Your task to perform on an android device: turn on the 12-hour format for clock Image 0: 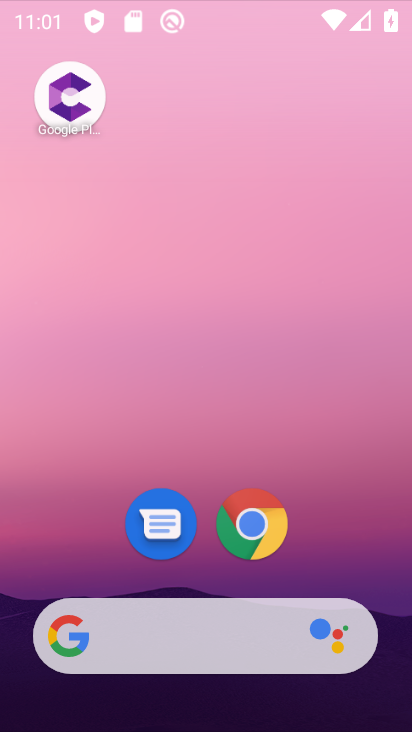
Step 0: click (54, 83)
Your task to perform on an android device: turn on the 12-hour format for clock Image 1: 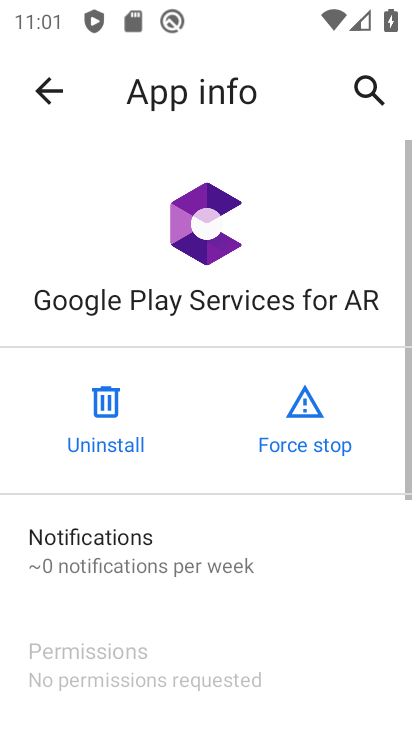
Step 1: drag from (293, 713) to (184, 159)
Your task to perform on an android device: turn on the 12-hour format for clock Image 2: 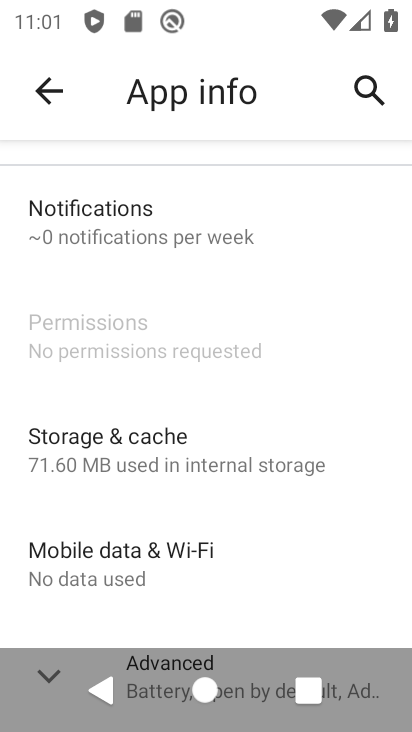
Step 2: click (43, 80)
Your task to perform on an android device: turn on the 12-hour format for clock Image 3: 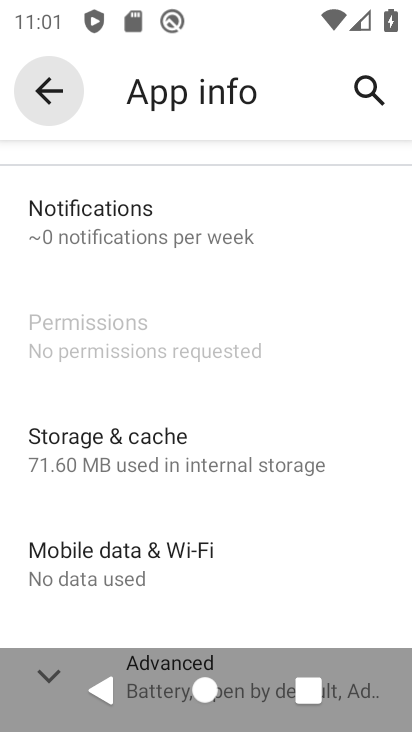
Step 3: click (43, 80)
Your task to perform on an android device: turn on the 12-hour format for clock Image 4: 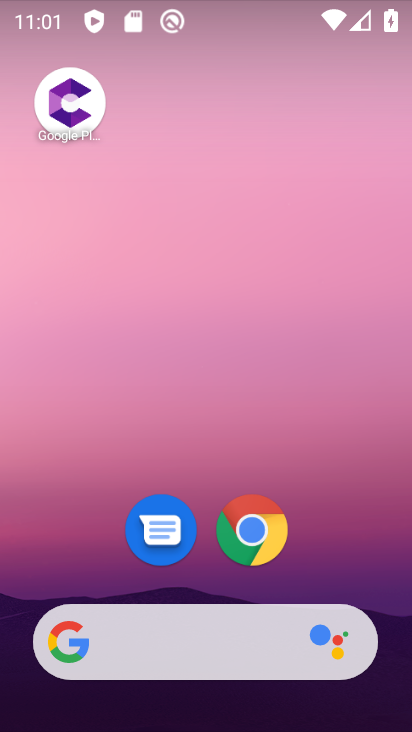
Step 4: drag from (233, 692) to (159, 100)
Your task to perform on an android device: turn on the 12-hour format for clock Image 5: 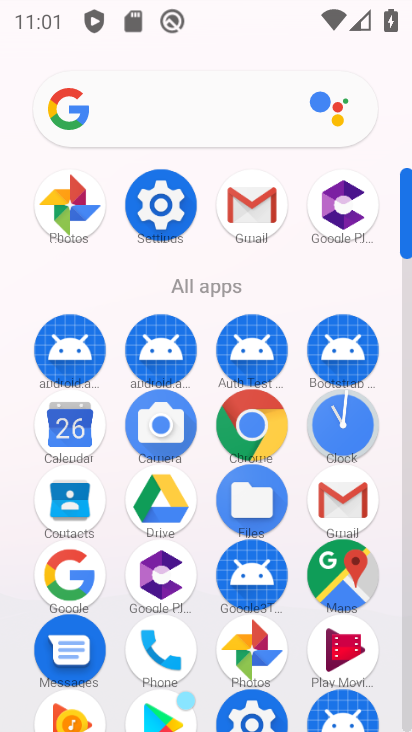
Step 5: click (347, 453)
Your task to perform on an android device: turn on the 12-hour format for clock Image 6: 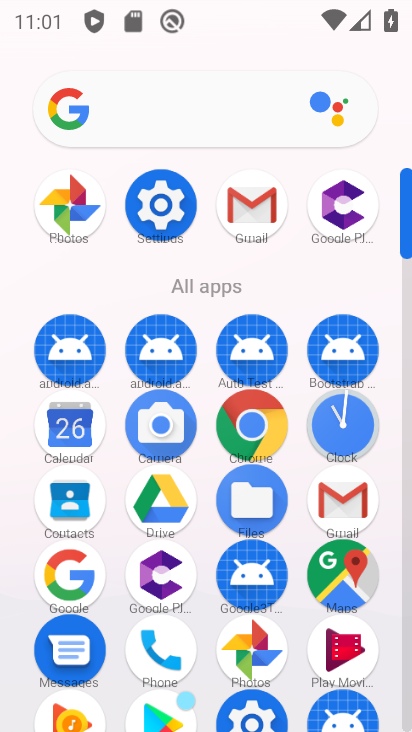
Step 6: click (345, 443)
Your task to perform on an android device: turn on the 12-hour format for clock Image 7: 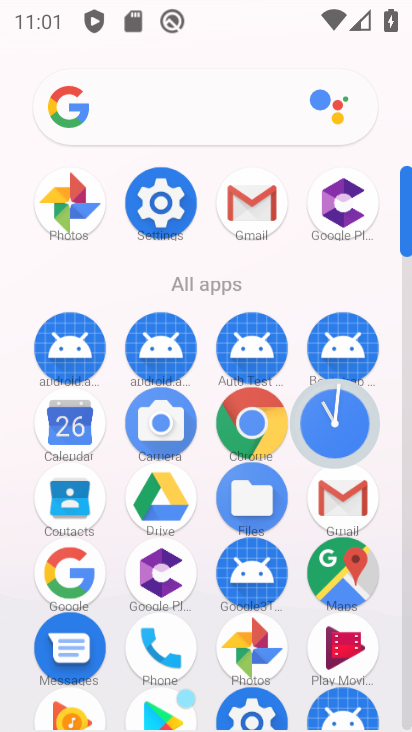
Step 7: click (345, 443)
Your task to perform on an android device: turn on the 12-hour format for clock Image 8: 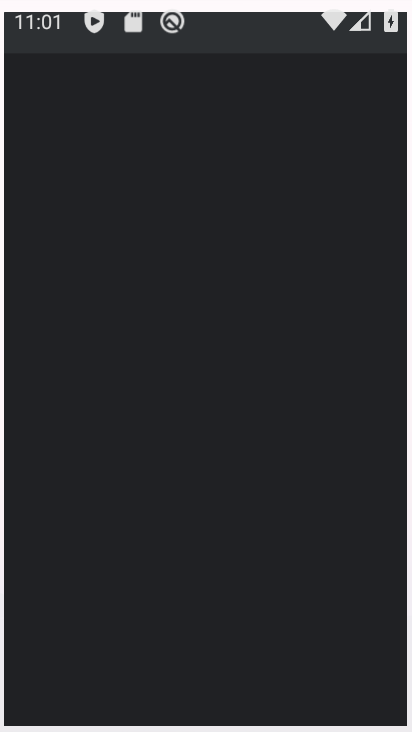
Step 8: click (345, 443)
Your task to perform on an android device: turn on the 12-hour format for clock Image 9: 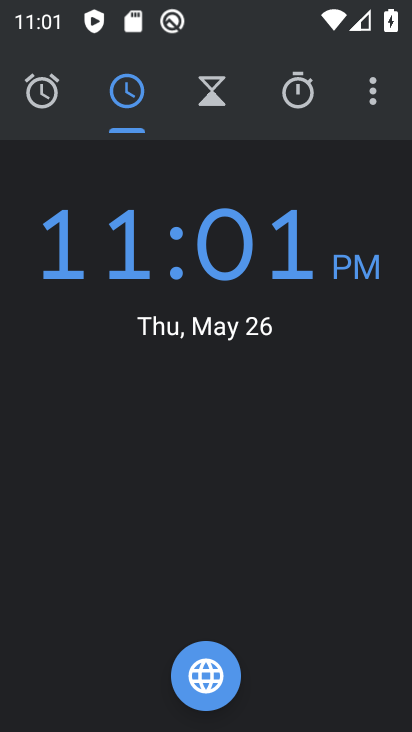
Step 9: click (370, 91)
Your task to perform on an android device: turn on the 12-hour format for clock Image 10: 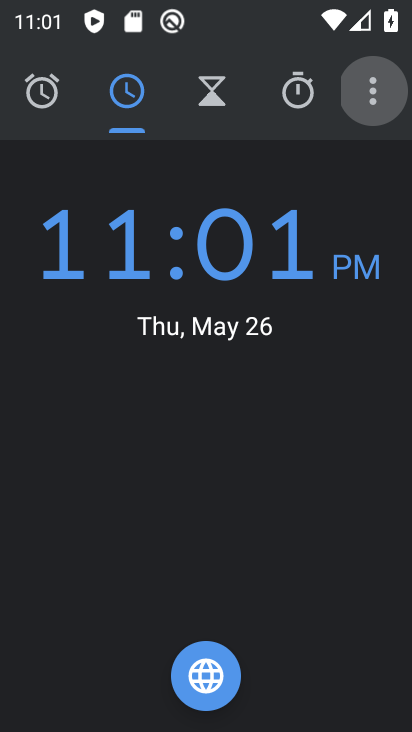
Step 10: click (371, 91)
Your task to perform on an android device: turn on the 12-hour format for clock Image 11: 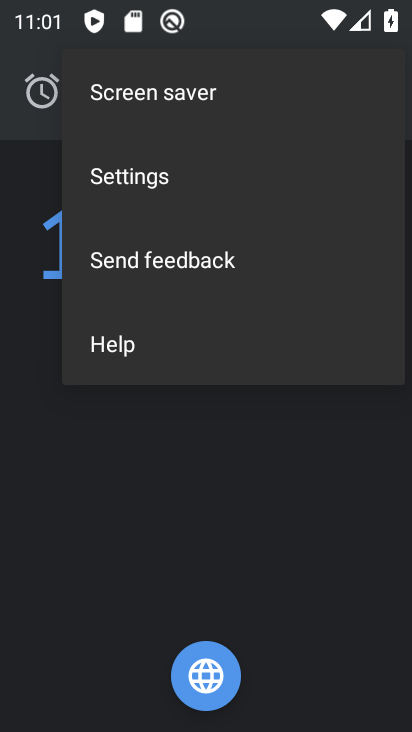
Step 11: click (372, 95)
Your task to perform on an android device: turn on the 12-hour format for clock Image 12: 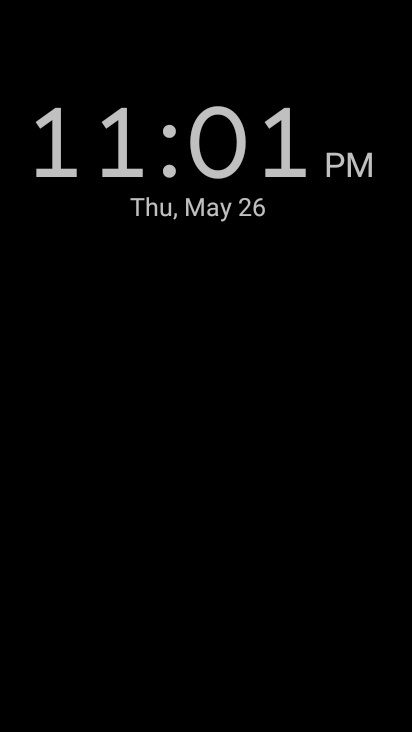
Step 12: press back button
Your task to perform on an android device: turn on the 12-hour format for clock Image 13: 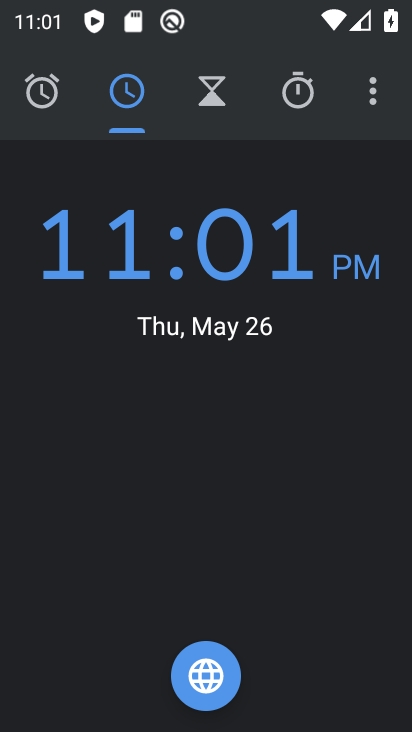
Step 13: click (377, 95)
Your task to perform on an android device: turn on the 12-hour format for clock Image 14: 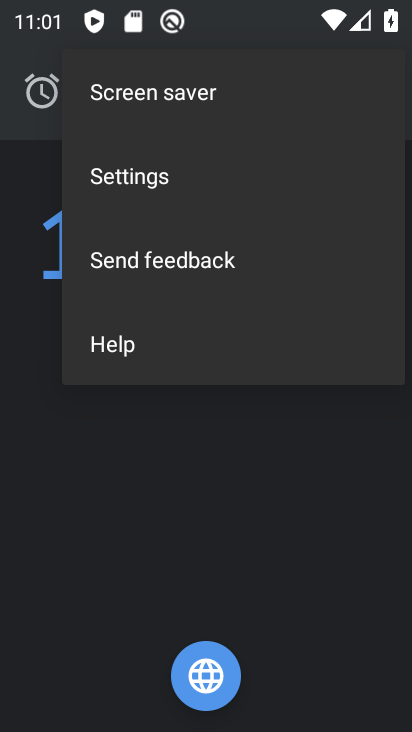
Step 14: click (136, 173)
Your task to perform on an android device: turn on the 12-hour format for clock Image 15: 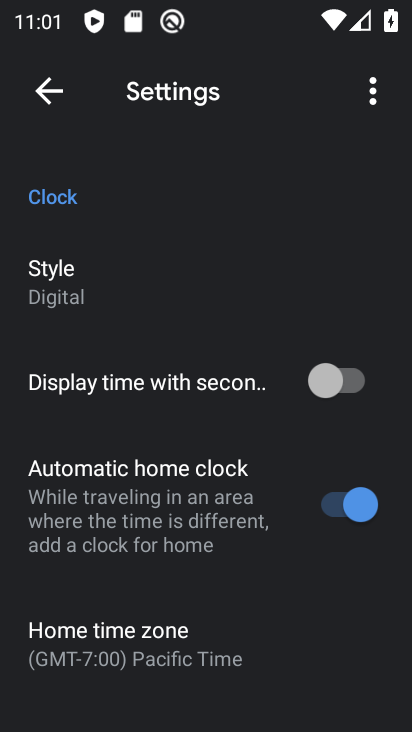
Step 15: drag from (194, 617) to (136, 240)
Your task to perform on an android device: turn on the 12-hour format for clock Image 16: 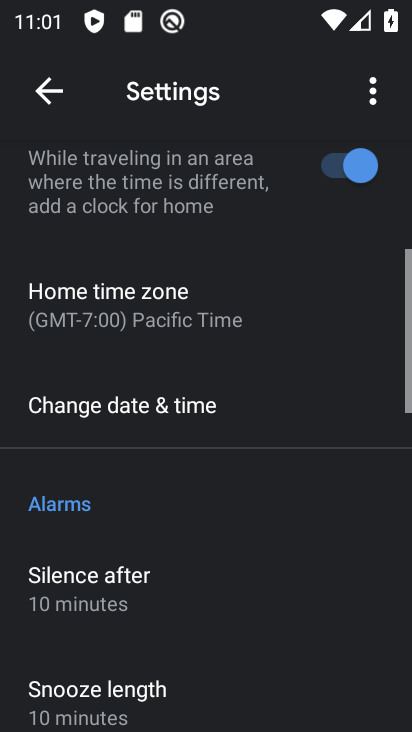
Step 16: drag from (167, 469) to (167, 247)
Your task to perform on an android device: turn on the 12-hour format for clock Image 17: 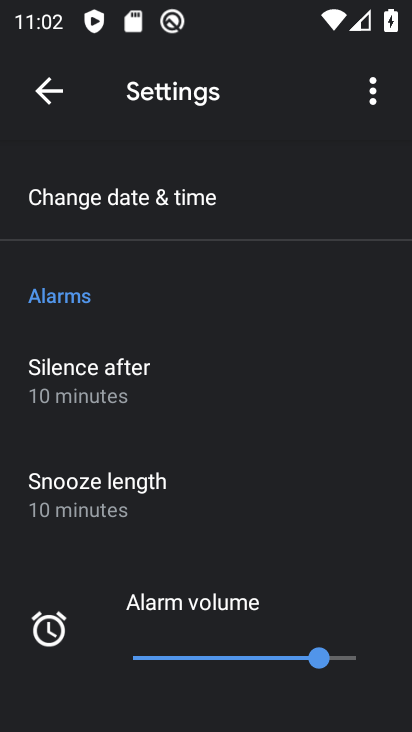
Step 17: drag from (139, 482) to (137, 57)
Your task to perform on an android device: turn on the 12-hour format for clock Image 18: 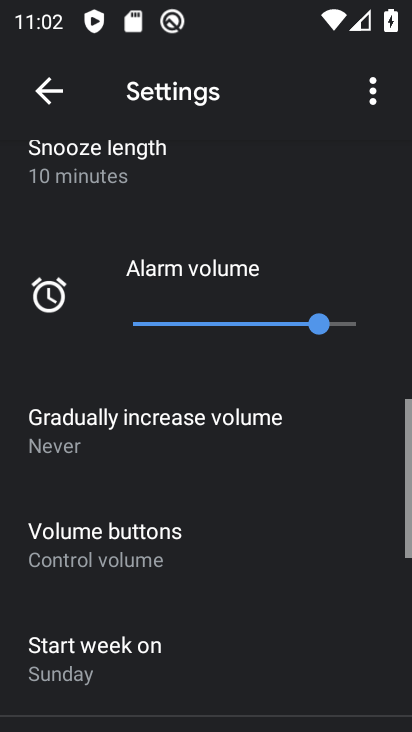
Step 18: drag from (187, 384) to (220, 158)
Your task to perform on an android device: turn on the 12-hour format for clock Image 19: 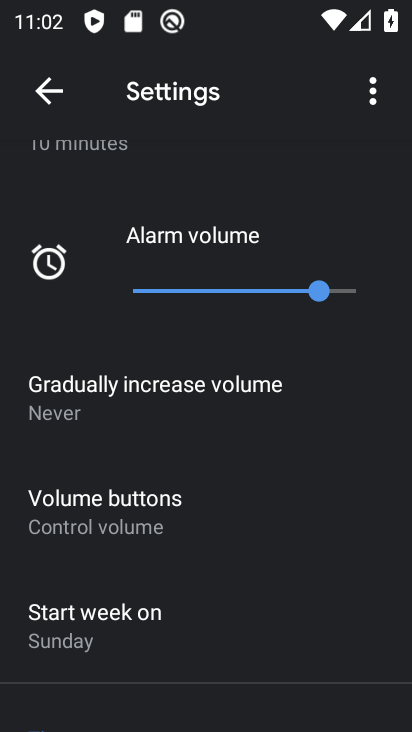
Step 19: drag from (170, 217) to (185, 536)
Your task to perform on an android device: turn on the 12-hour format for clock Image 20: 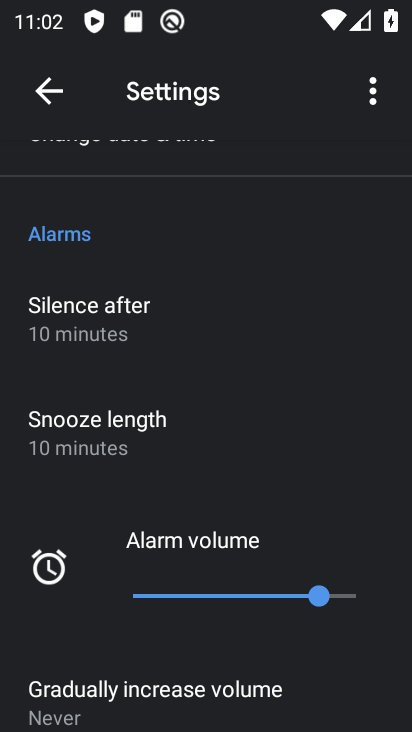
Step 20: drag from (143, 210) to (180, 473)
Your task to perform on an android device: turn on the 12-hour format for clock Image 21: 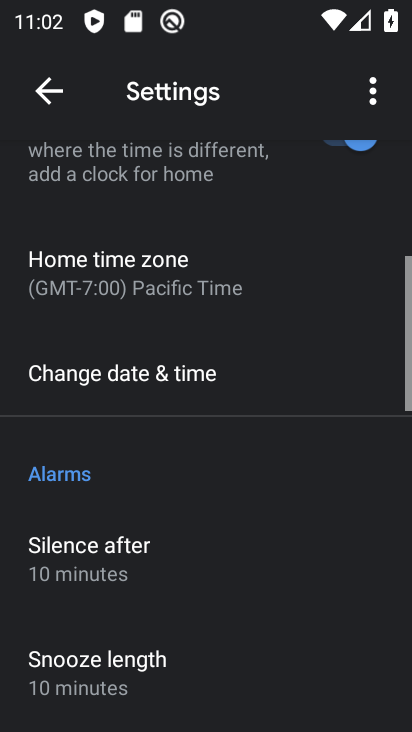
Step 21: drag from (142, 466) to (142, 563)
Your task to perform on an android device: turn on the 12-hour format for clock Image 22: 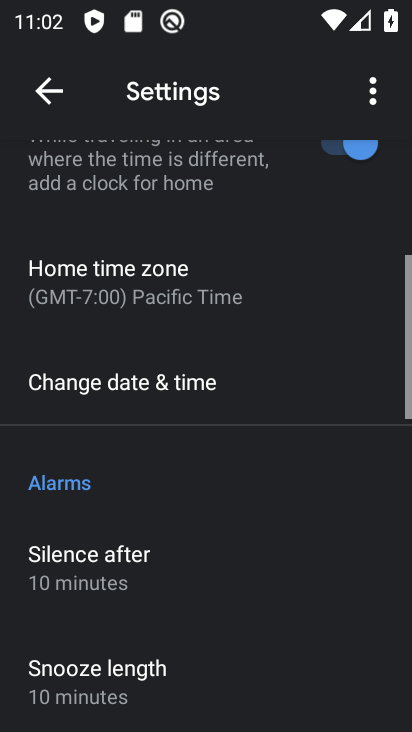
Step 22: drag from (89, 322) to (115, 535)
Your task to perform on an android device: turn on the 12-hour format for clock Image 23: 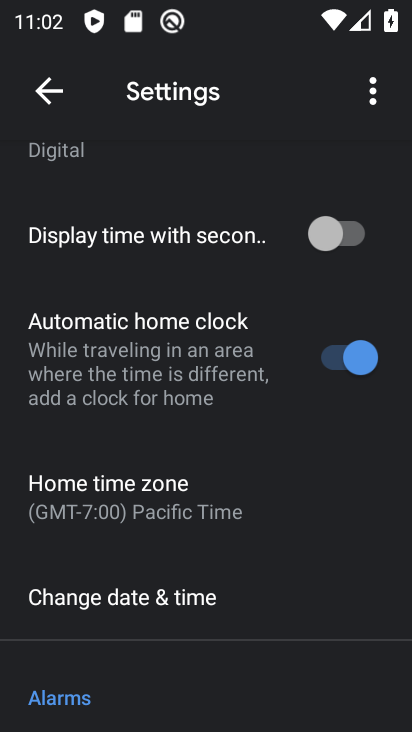
Step 23: click (221, 572)
Your task to perform on an android device: turn on the 12-hour format for clock Image 24: 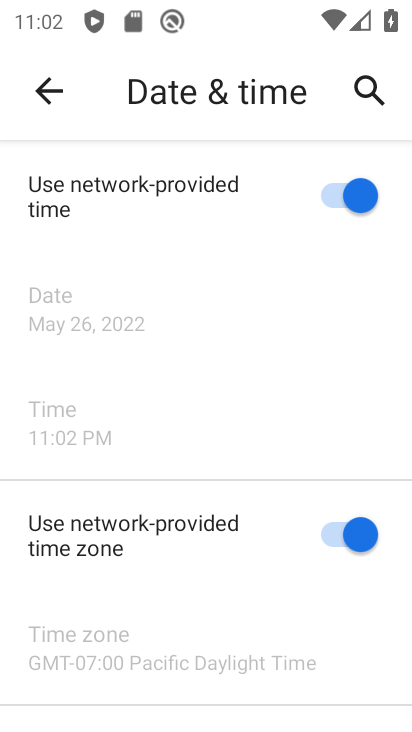
Step 24: task complete